Your task to perform on an android device: Open sound settings Image 0: 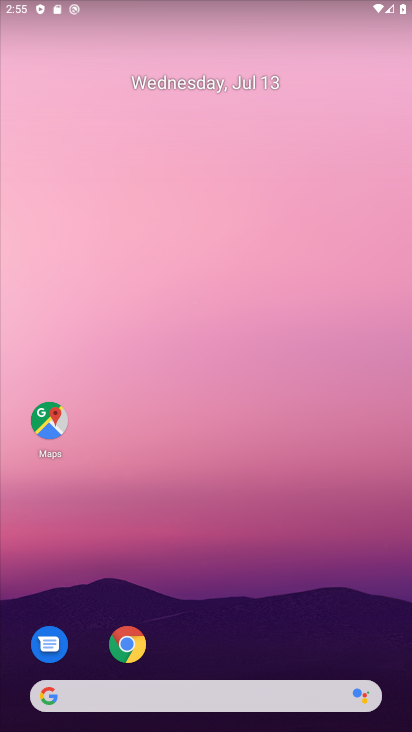
Step 0: drag from (221, 692) to (250, 290)
Your task to perform on an android device: Open sound settings Image 1: 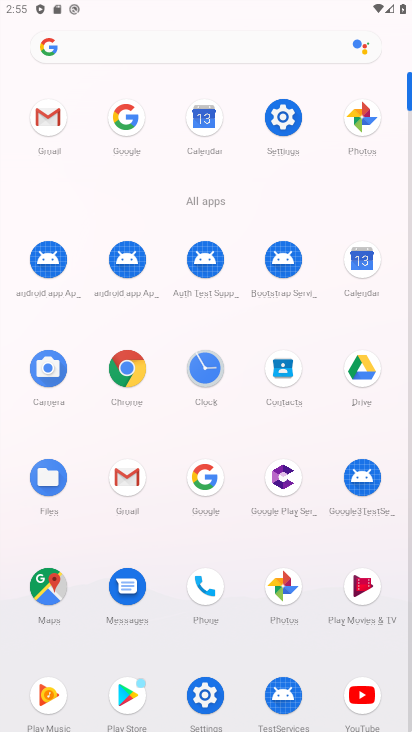
Step 1: click (284, 119)
Your task to perform on an android device: Open sound settings Image 2: 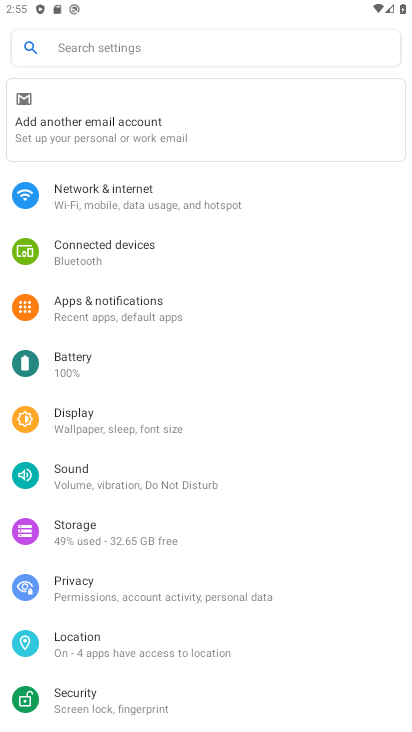
Step 2: click (86, 482)
Your task to perform on an android device: Open sound settings Image 3: 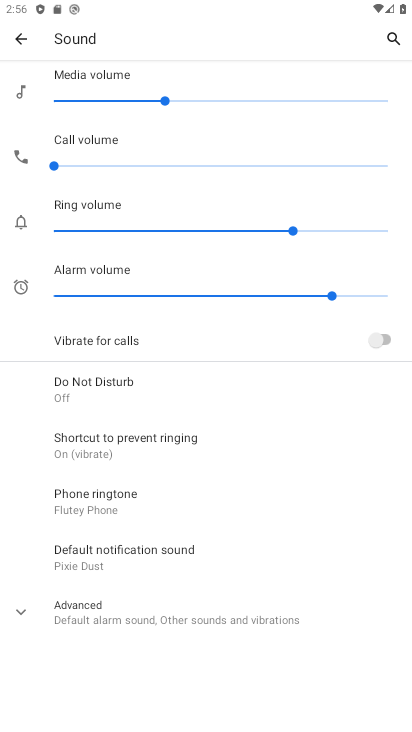
Step 3: task complete